Your task to perform on an android device: show emergency info Image 0: 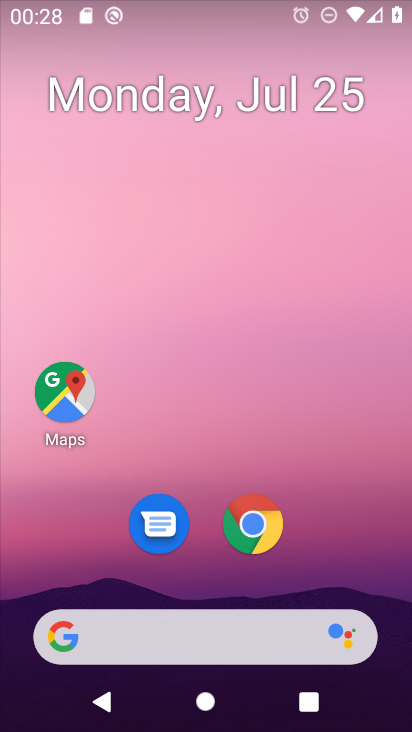
Step 0: press home button
Your task to perform on an android device: show emergency info Image 1: 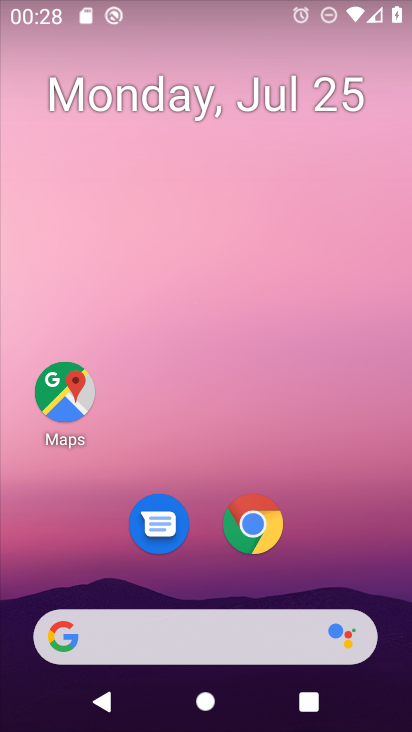
Step 1: drag from (239, 638) to (386, 24)
Your task to perform on an android device: show emergency info Image 2: 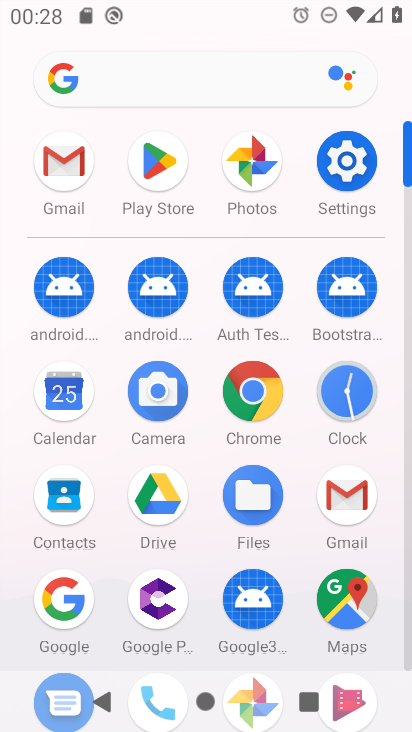
Step 2: click (339, 172)
Your task to perform on an android device: show emergency info Image 3: 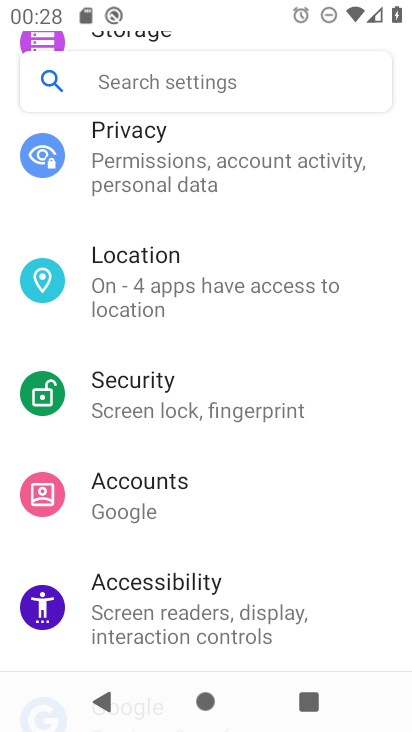
Step 3: drag from (281, 563) to (364, 150)
Your task to perform on an android device: show emergency info Image 4: 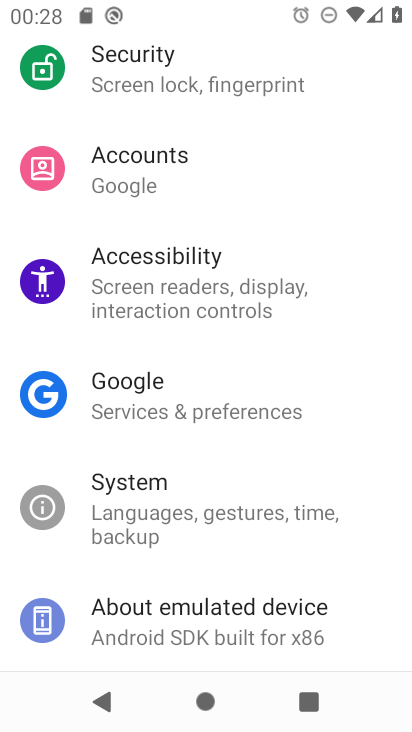
Step 4: click (203, 613)
Your task to perform on an android device: show emergency info Image 5: 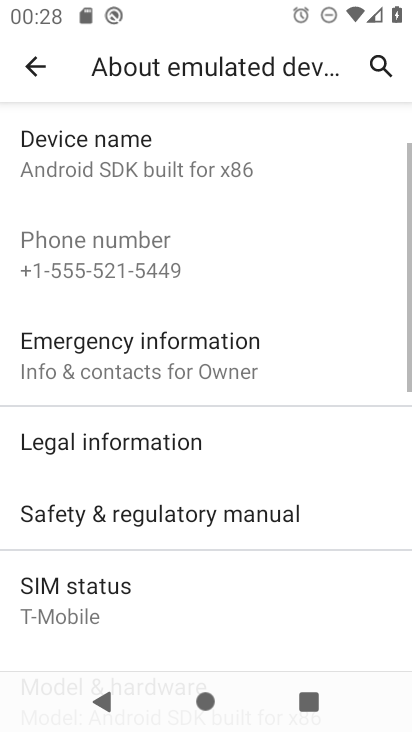
Step 5: click (192, 366)
Your task to perform on an android device: show emergency info Image 6: 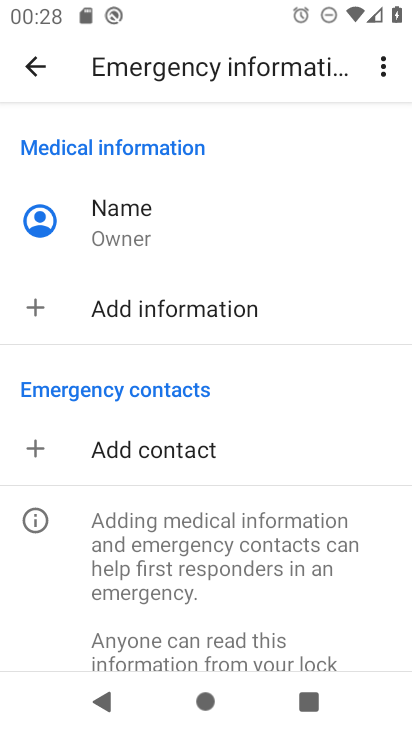
Step 6: task complete